Your task to perform on an android device: delete the emails in spam in the gmail app Image 0: 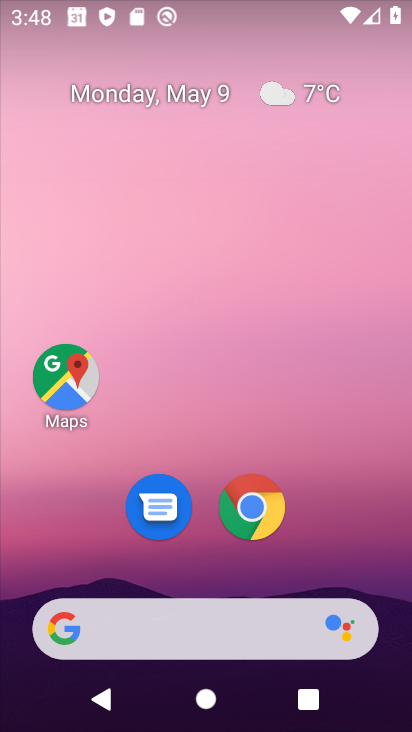
Step 0: drag from (295, 672) to (199, 170)
Your task to perform on an android device: delete the emails in spam in the gmail app Image 1: 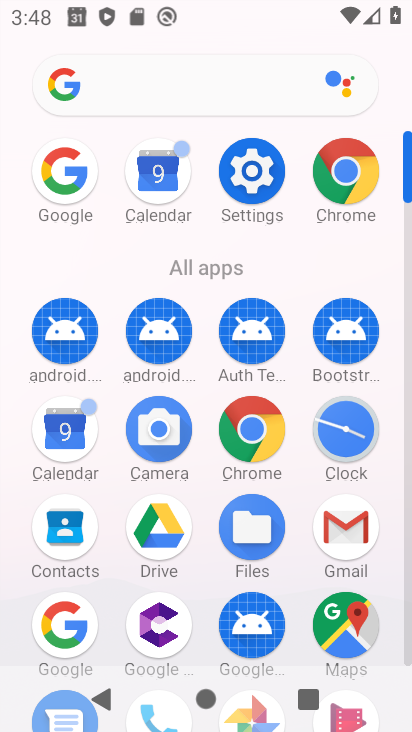
Step 1: click (353, 542)
Your task to perform on an android device: delete the emails in spam in the gmail app Image 2: 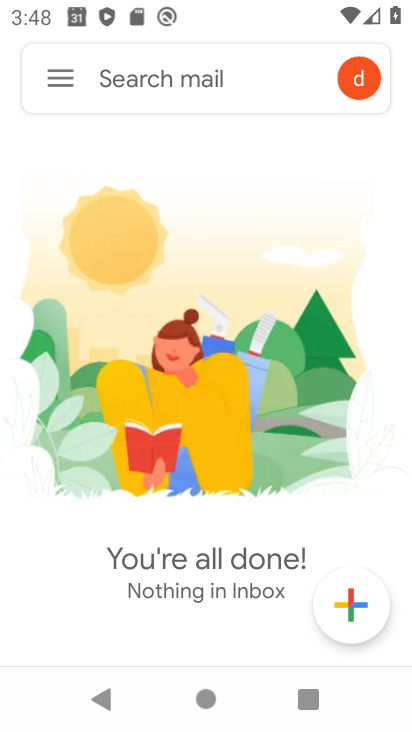
Step 2: click (37, 96)
Your task to perform on an android device: delete the emails in spam in the gmail app Image 3: 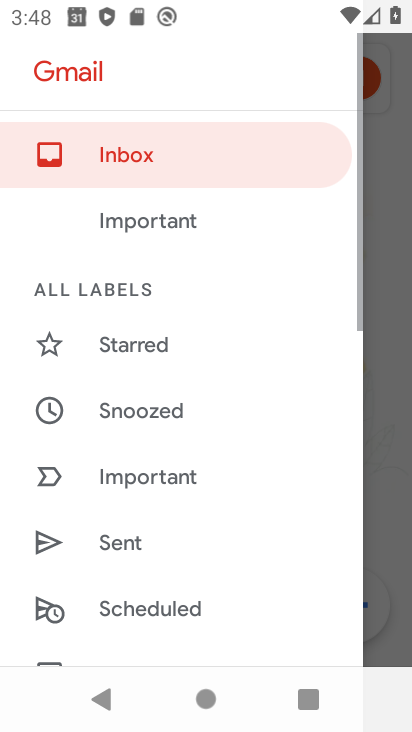
Step 3: drag from (160, 559) to (198, 281)
Your task to perform on an android device: delete the emails in spam in the gmail app Image 4: 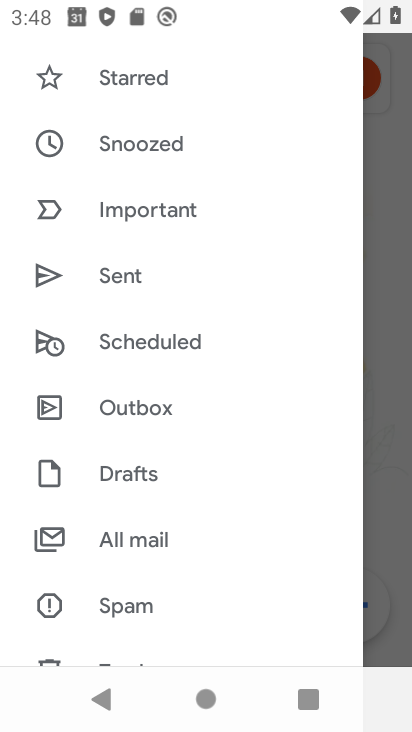
Step 4: click (128, 613)
Your task to perform on an android device: delete the emails in spam in the gmail app Image 5: 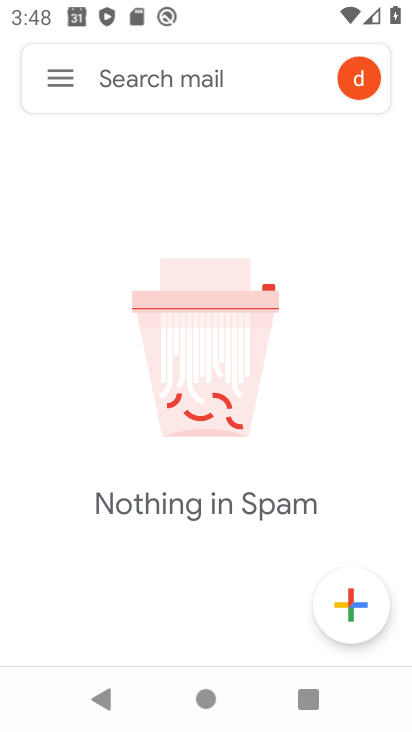
Step 5: task complete